Your task to perform on an android device: Open privacy settings Image 0: 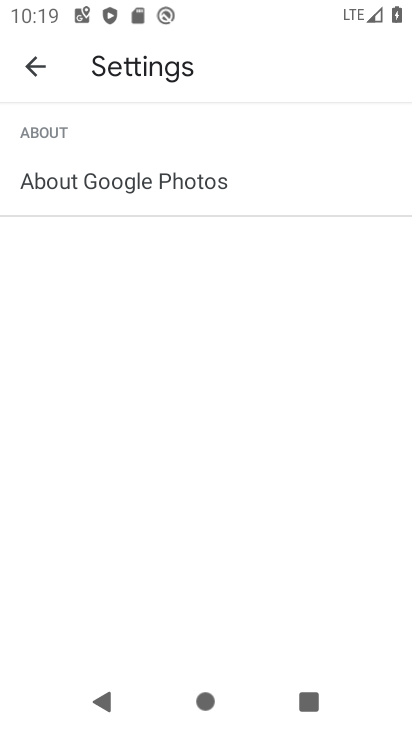
Step 0: press home button
Your task to perform on an android device: Open privacy settings Image 1: 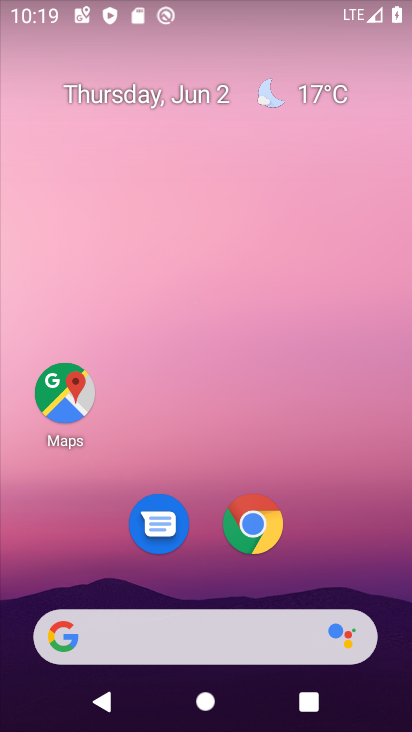
Step 1: drag from (309, 478) to (265, 0)
Your task to perform on an android device: Open privacy settings Image 2: 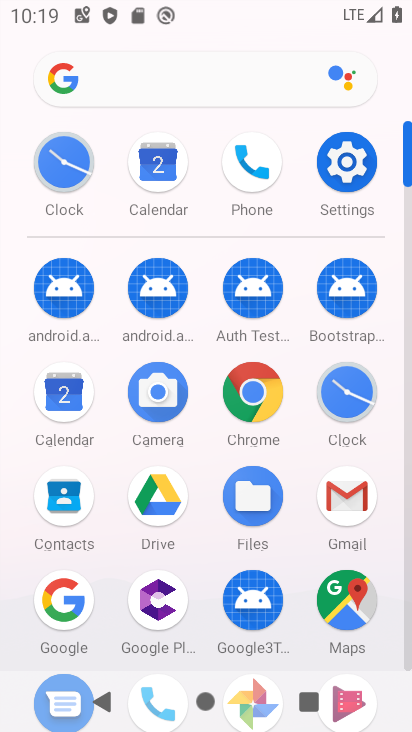
Step 2: click (343, 165)
Your task to perform on an android device: Open privacy settings Image 3: 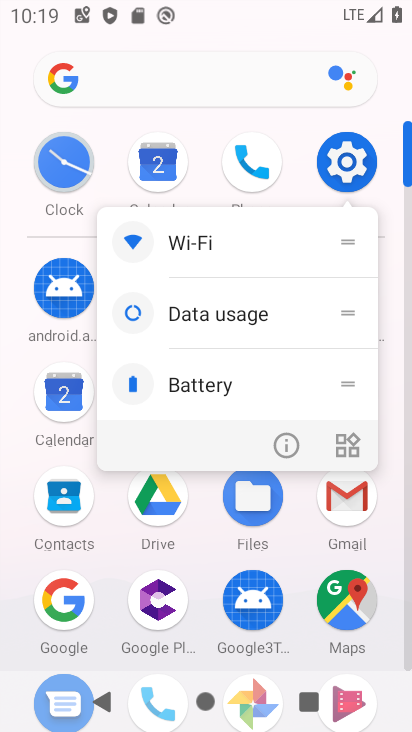
Step 3: click (345, 162)
Your task to perform on an android device: Open privacy settings Image 4: 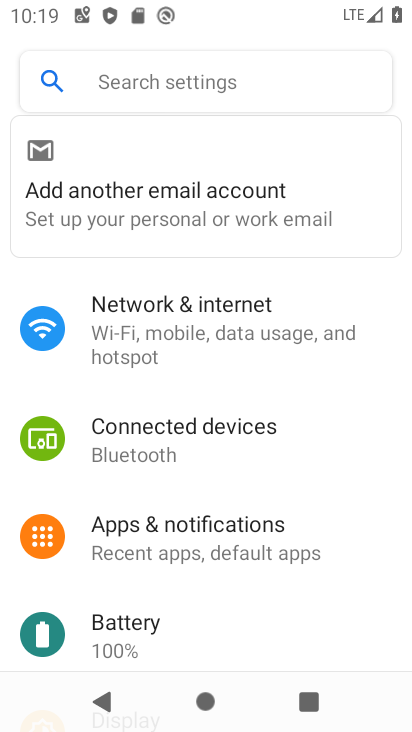
Step 4: drag from (265, 583) to (225, 0)
Your task to perform on an android device: Open privacy settings Image 5: 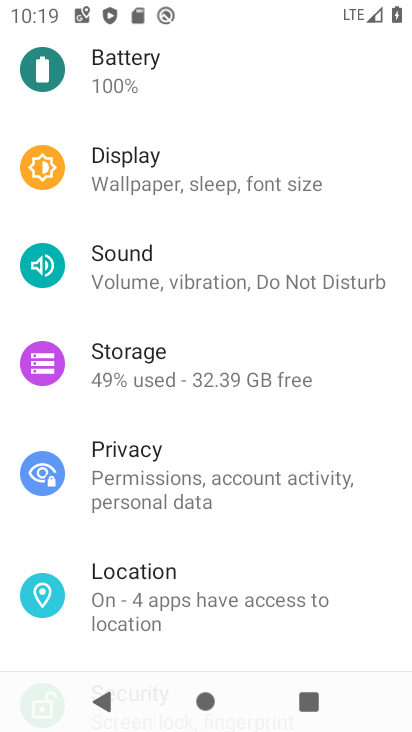
Step 5: drag from (253, 512) to (254, 194)
Your task to perform on an android device: Open privacy settings Image 6: 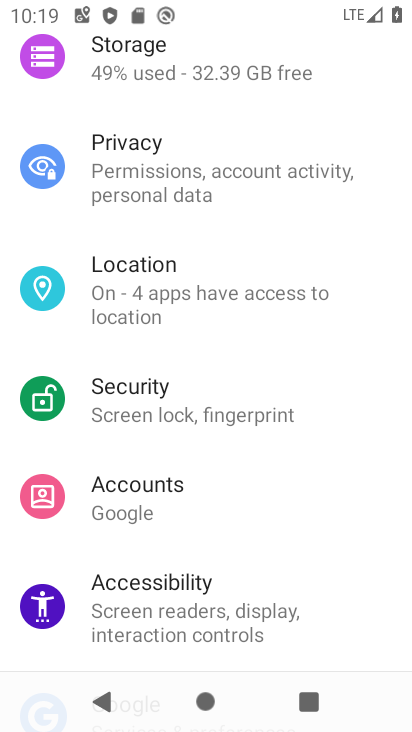
Step 6: click (247, 172)
Your task to perform on an android device: Open privacy settings Image 7: 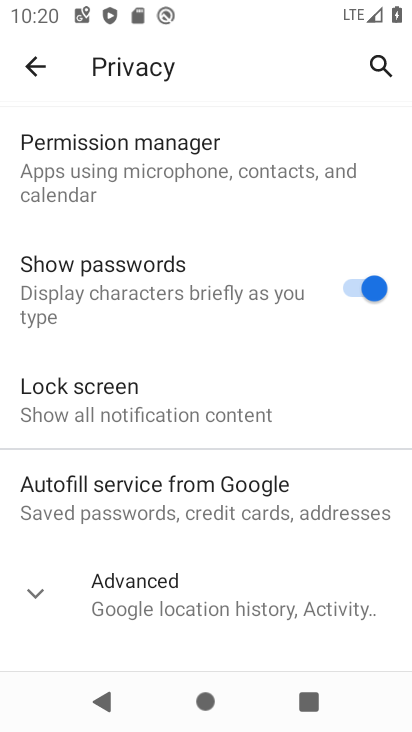
Step 7: task complete